Your task to perform on an android device: Show the shopping cart on amazon. Image 0: 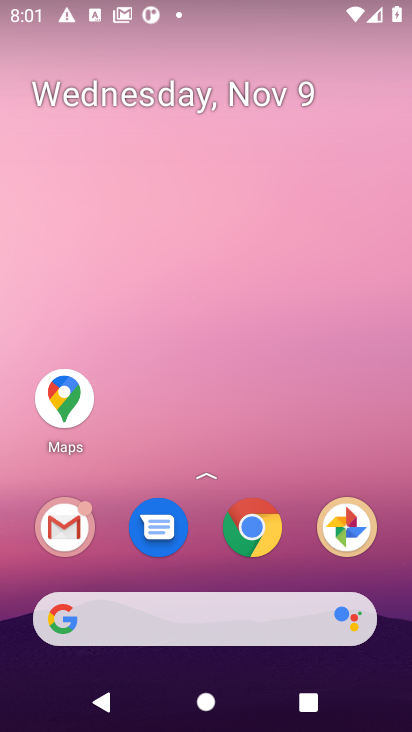
Step 0: click (244, 528)
Your task to perform on an android device: Show the shopping cart on amazon. Image 1: 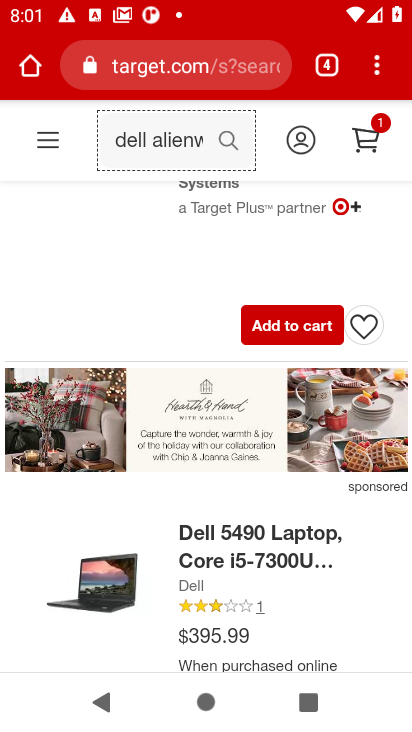
Step 1: click (136, 64)
Your task to perform on an android device: Show the shopping cart on amazon. Image 2: 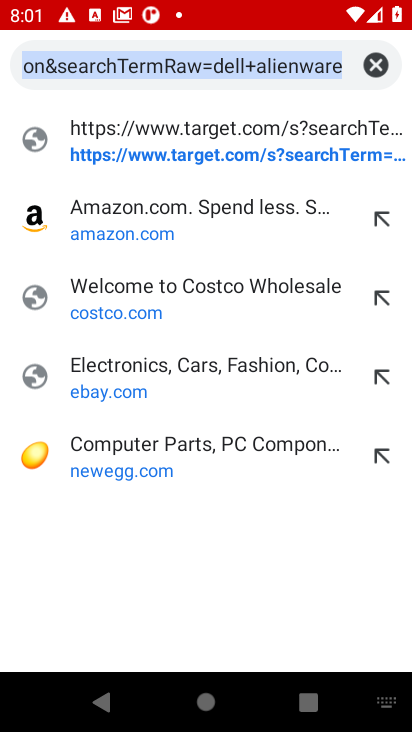
Step 2: click (136, 223)
Your task to perform on an android device: Show the shopping cart on amazon. Image 3: 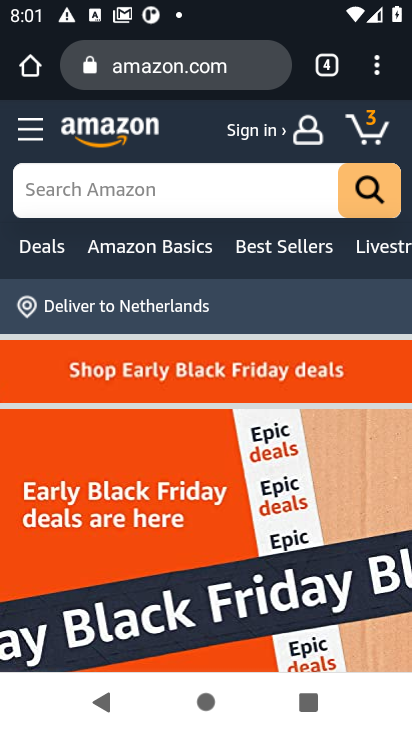
Step 3: click (363, 139)
Your task to perform on an android device: Show the shopping cart on amazon. Image 4: 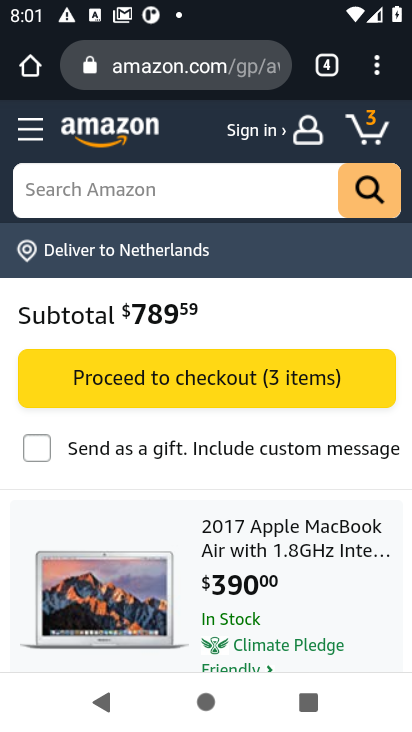
Step 4: task complete